Your task to perform on an android device: Open the stopwatch Image 0: 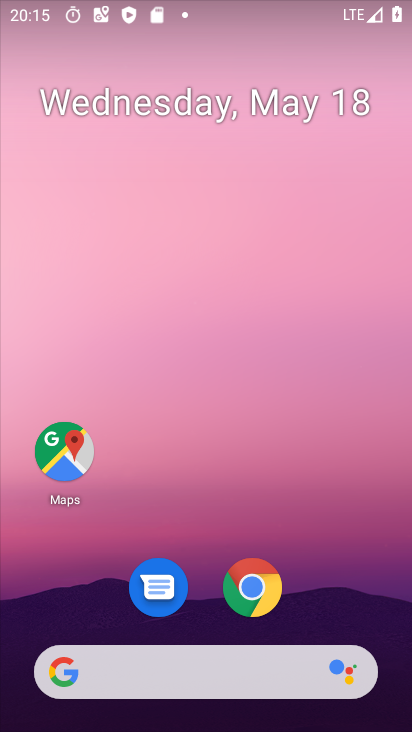
Step 0: drag from (191, 625) to (188, 200)
Your task to perform on an android device: Open the stopwatch Image 1: 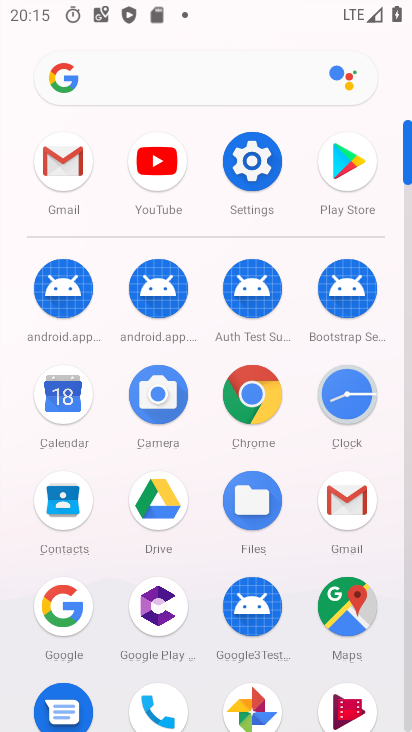
Step 1: click (336, 399)
Your task to perform on an android device: Open the stopwatch Image 2: 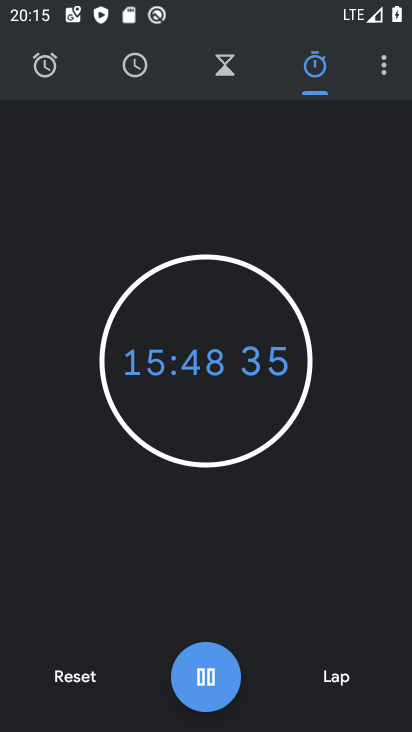
Step 2: click (210, 703)
Your task to perform on an android device: Open the stopwatch Image 3: 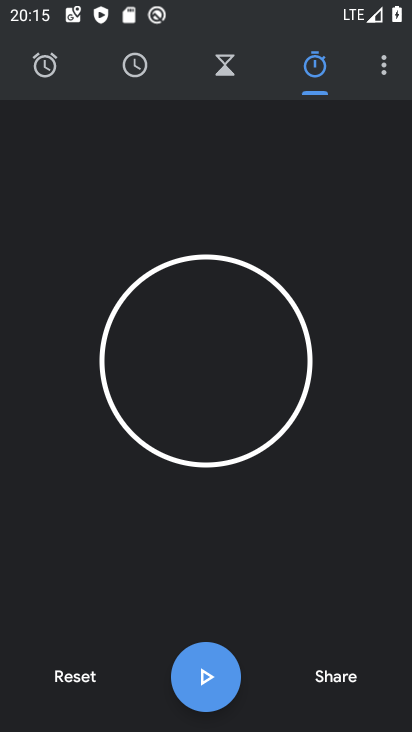
Step 3: task complete